Your task to perform on an android device: open app "Indeed Job Search" (install if not already installed), go to login, and select forgot password Image 0: 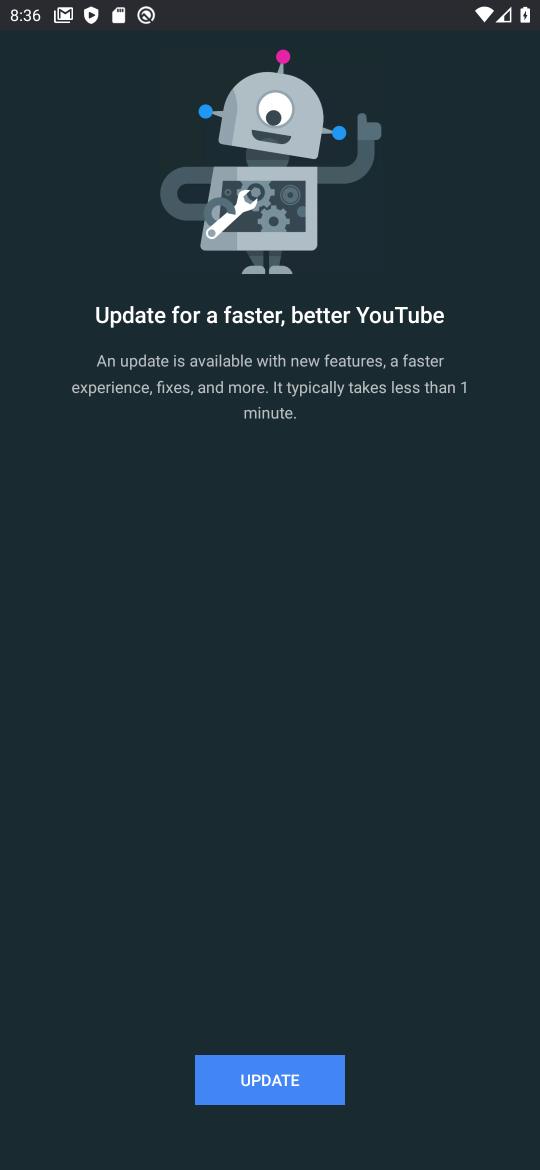
Step 0: press home button
Your task to perform on an android device: open app "Indeed Job Search" (install if not already installed), go to login, and select forgot password Image 1: 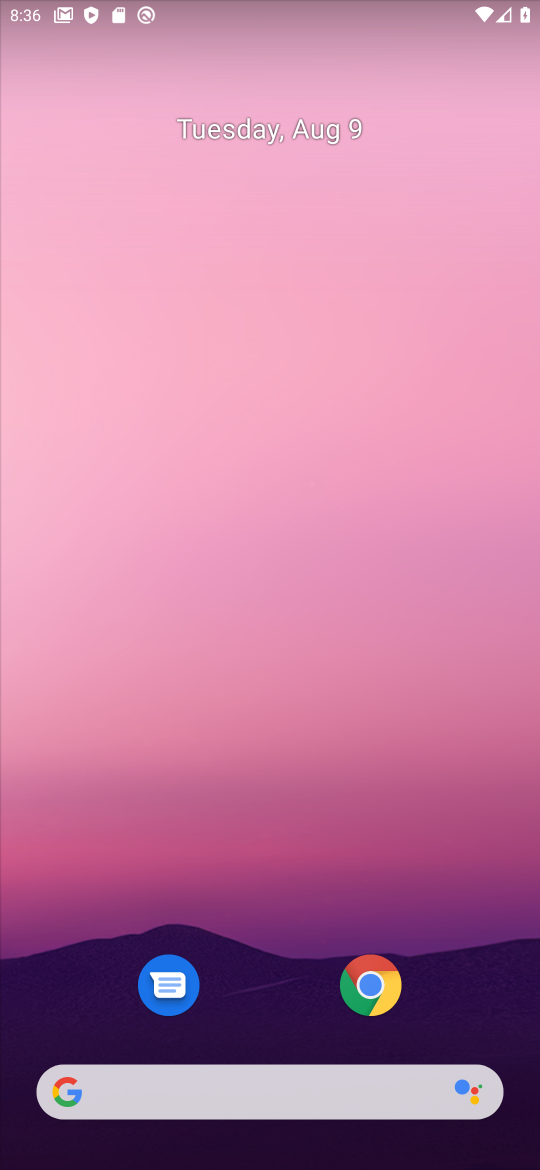
Step 1: drag from (234, 993) to (262, 656)
Your task to perform on an android device: open app "Indeed Job Search" (install if not already installed), go to login, and select forgot password Image 2: 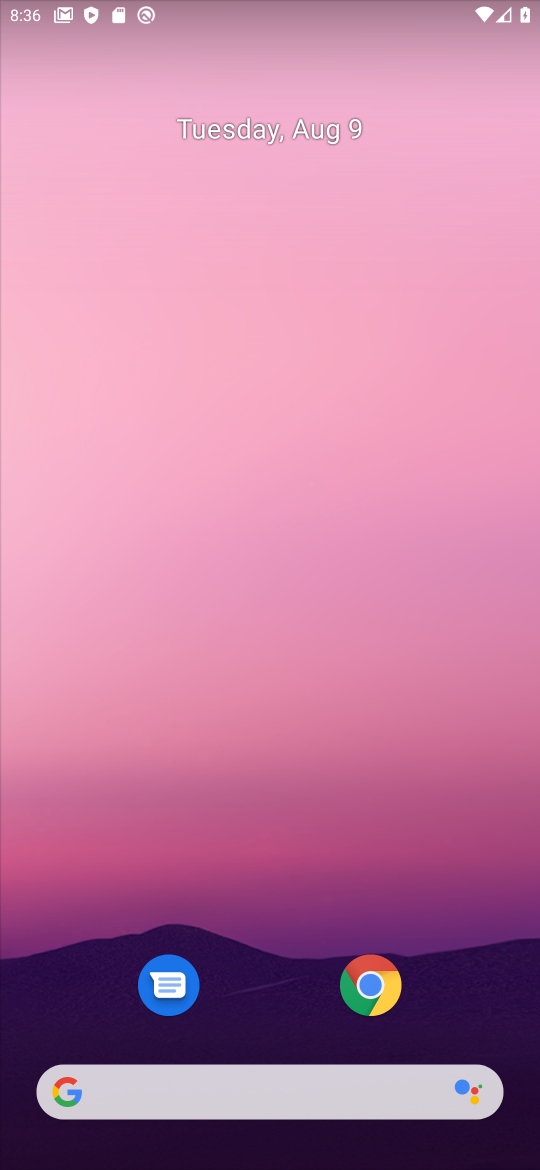
Step 2: drag from (265, 1029) to (337, 196)
Your task to perform on an android device: open app "Indeed Job Search" (install if not already installed), go to login, and select forgot password Image 3: 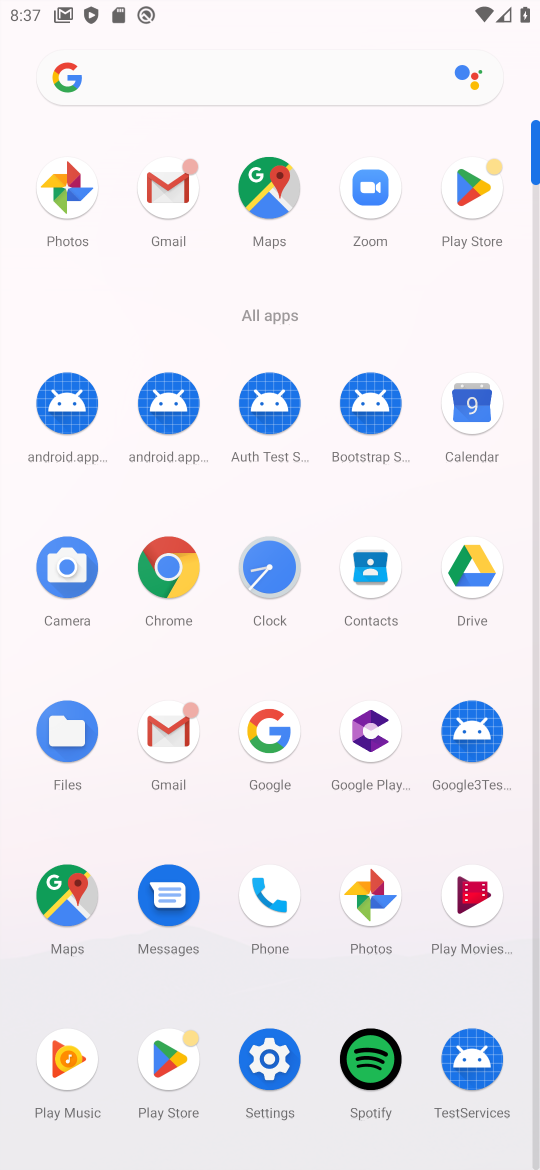
Step 3: click (160, 1069)
Your task to perform on an android device: open app "Indeed Job Search" (install if not already installed), go to login, and select forgot password Image 4: 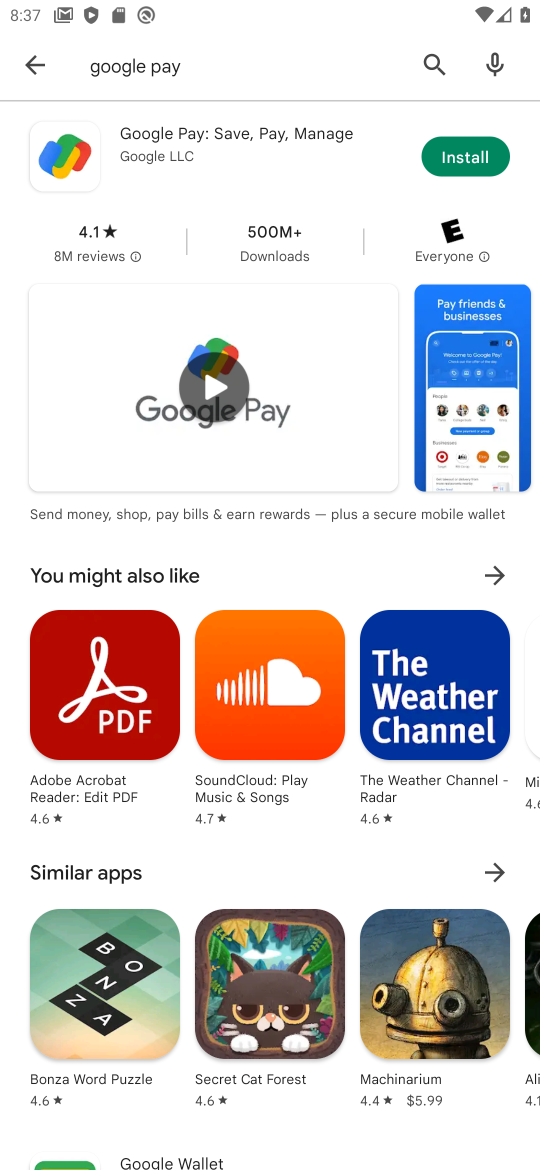
Step 4: click (213, 69)
Your task to perform on an android device: open app "Indeed Job Search" (install if not already installed), go to login, and select forgot password Image 5: 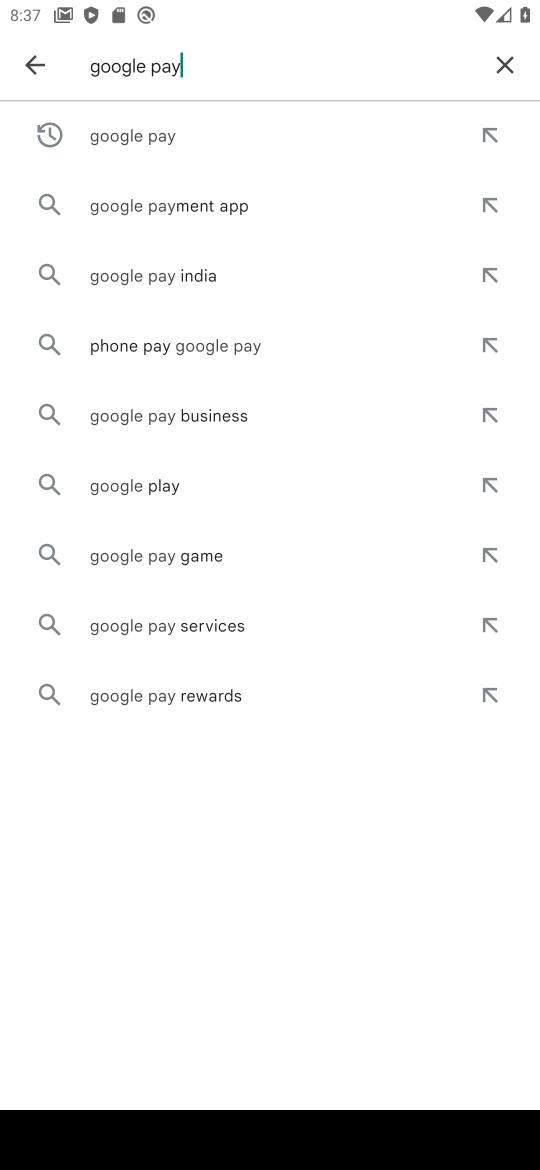
Step 5: click (516, 72)
Your task to perform on an android device: open app "Indeed Job Search" (install if not already installed), go to login, and select forgot password Image 6: 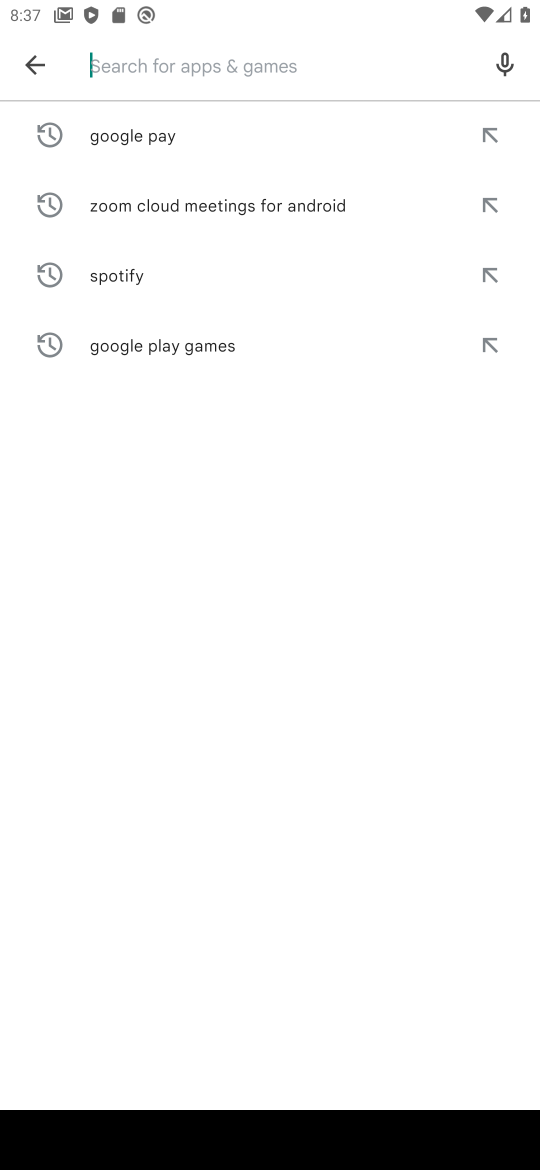
Step 6: type "indeed"
Your task to perform on an android device: open app "Indeed Job Search" (install if not already installed), go to login, and select forgot password Image 7: 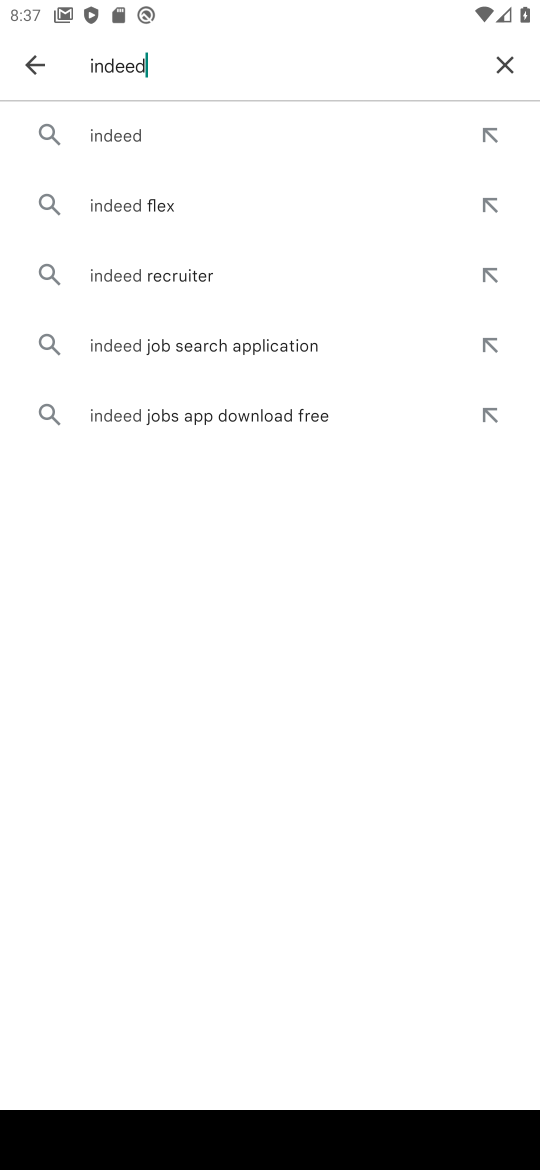
Step 7: click (128, 135)
Your task to perform on an android device: open app "Indeed Job Search" (install if not already installed), go to login, and select forgot password Image 8: 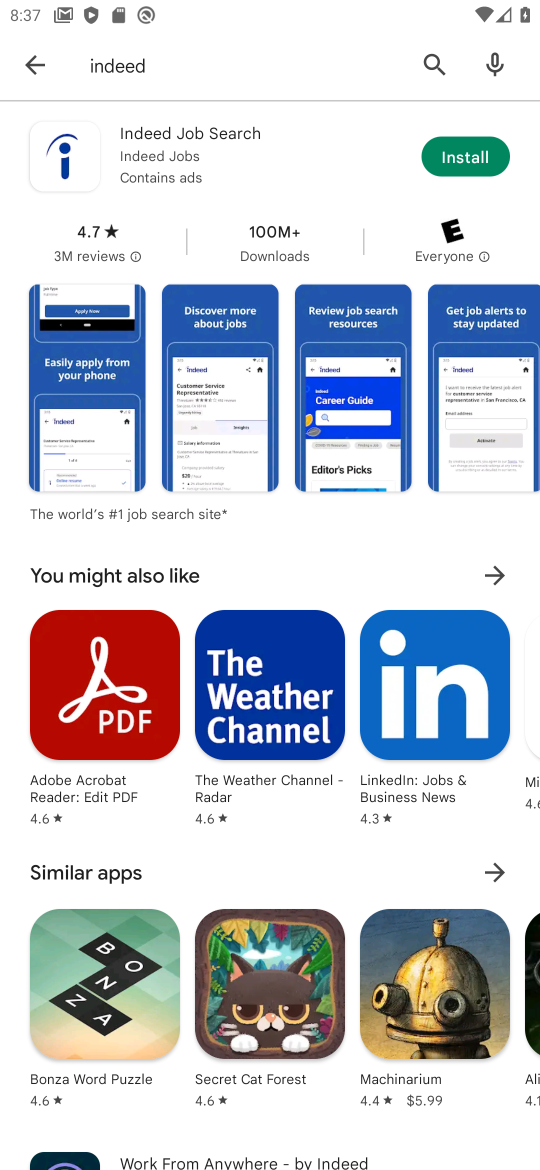
Step 8: click (444, 165)
Your task to perform on an android device: open app "Indeed Job Search" (install if not already installed), go to login, and select forgot password Image 9: 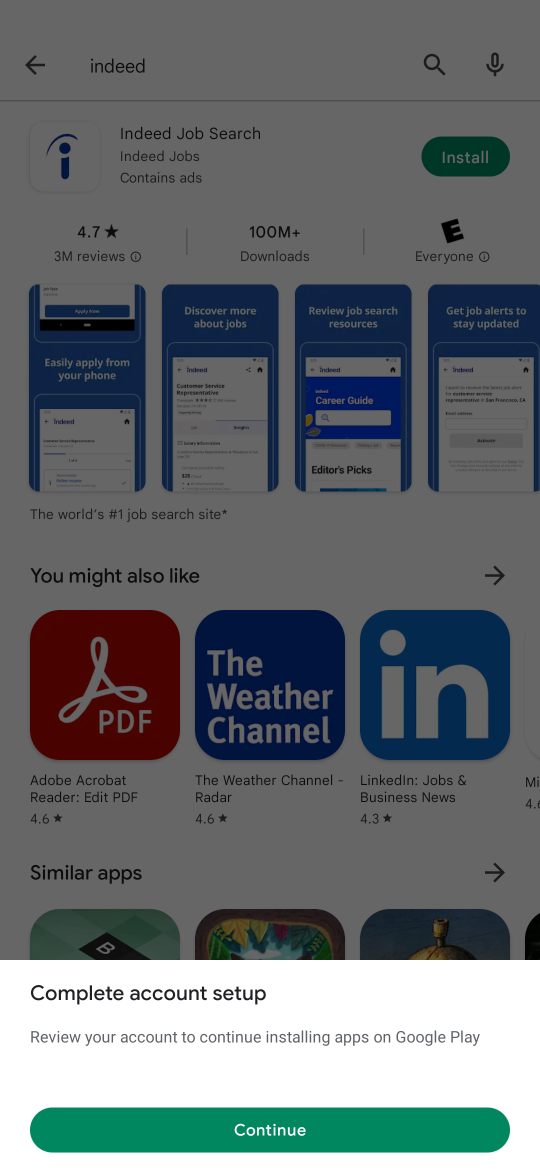
Step 9: click (214, 1120)
Your task to perform on an android device: open app "Indeed Job Search" (install if not already installed), go to login, and select forgot password Image 10: 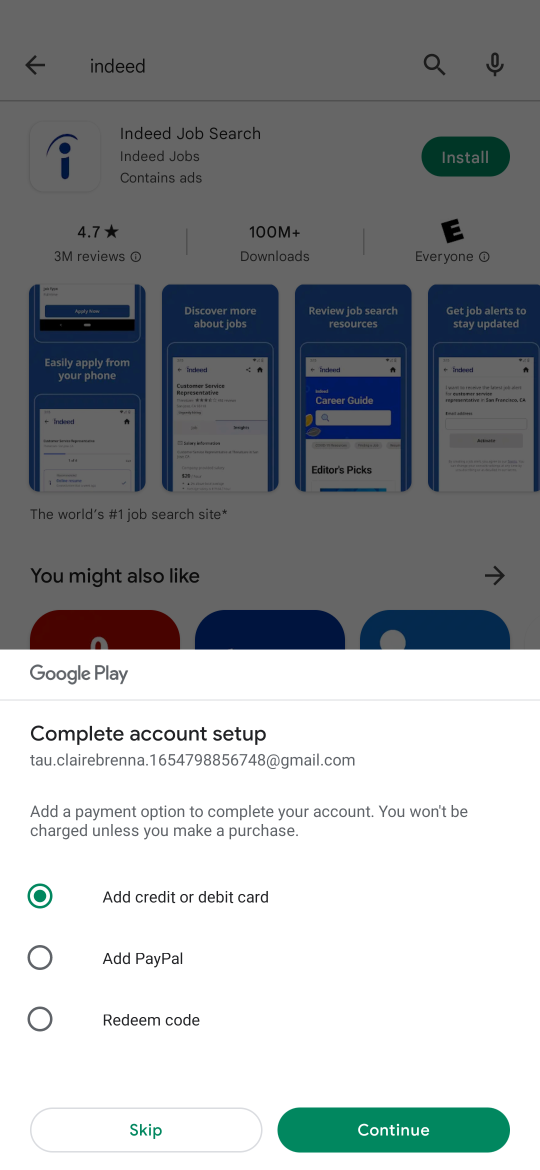
Step 10: click (152, 1137)
Your task to perform on an android device: open app "Indeed Job Search" (install if not already installed), go to login, and select forgot password Image 11: 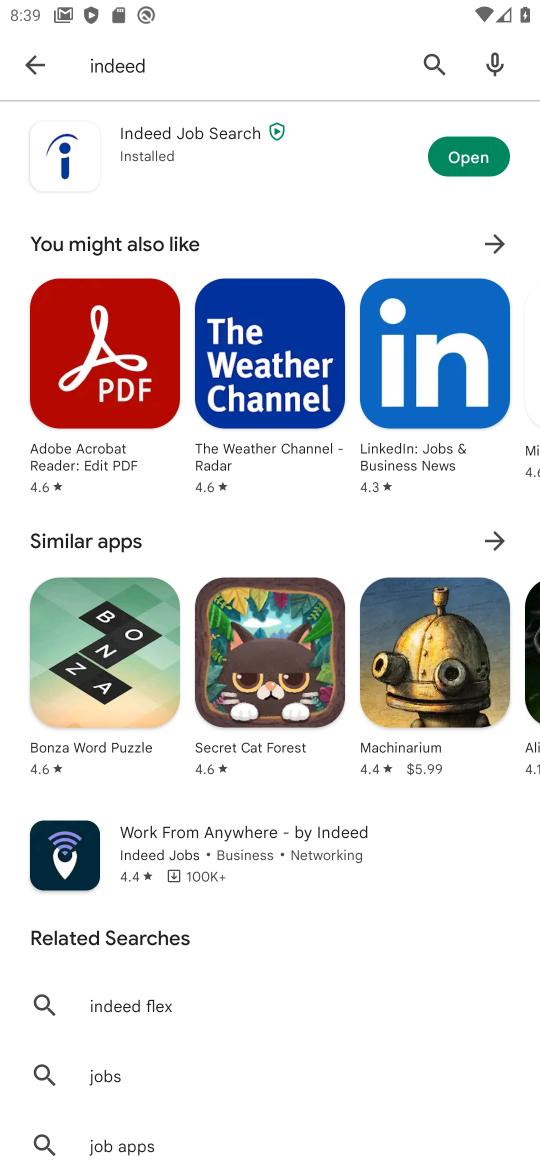
Step 11: click (451, 152)
Your task to perform on an android device: open app "Indeed Job Search" (install if not already installed), go to login, and select forgot password Image 12: 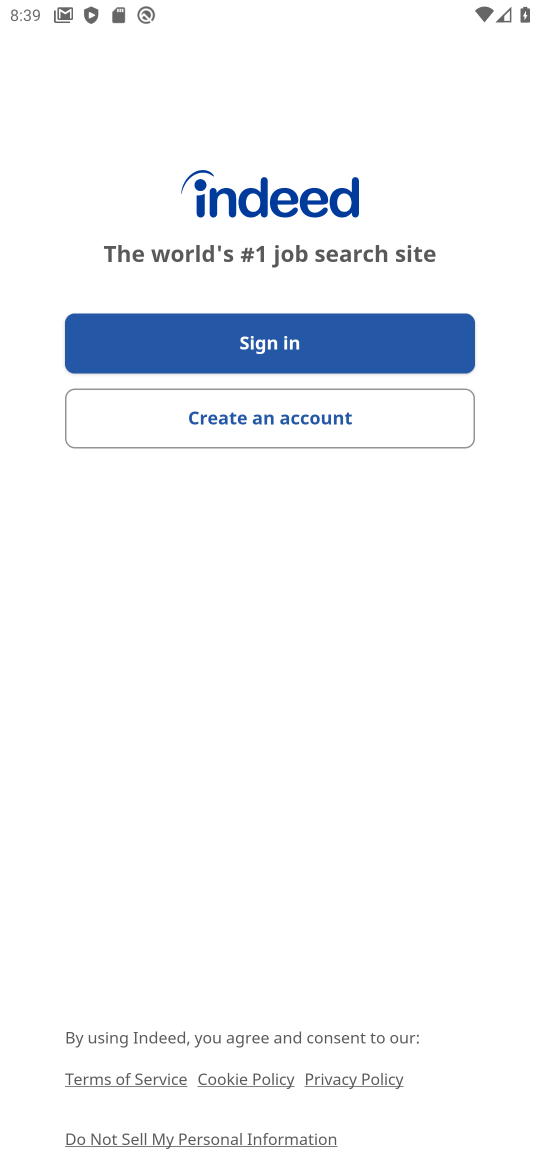
Step 12: click (285, 350)
Your task to perform on an android device: open app "Indeed Job Search" (install if not already installed), go to login, and select forgot password Image 13: 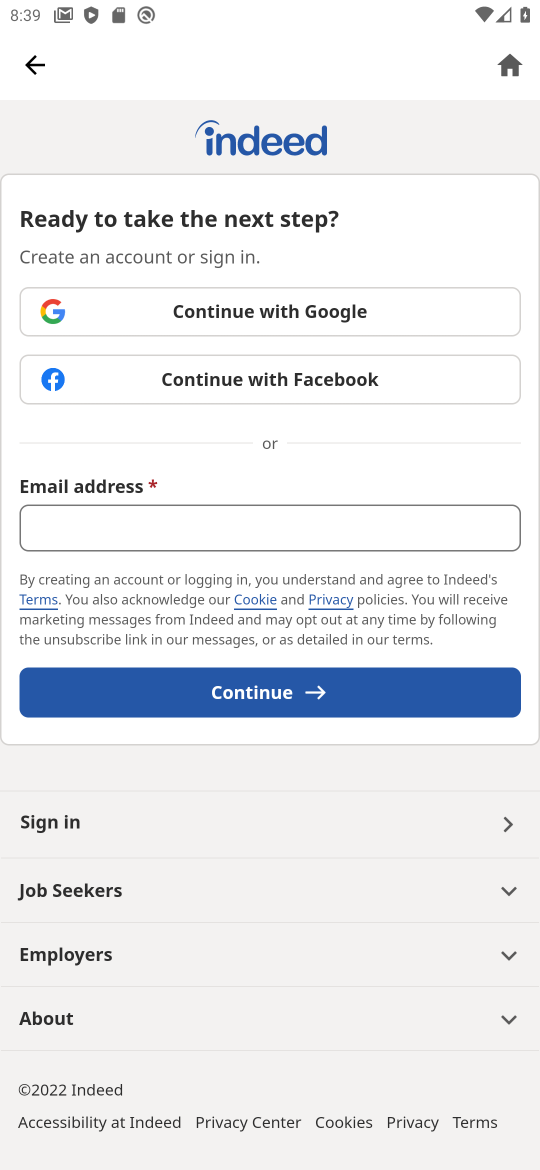
Step 13: click (305, 301)
Your task to perform on an android device: open app "Indeed Job Search" (install if not already installed), go to login, and select forgot password Image 14: 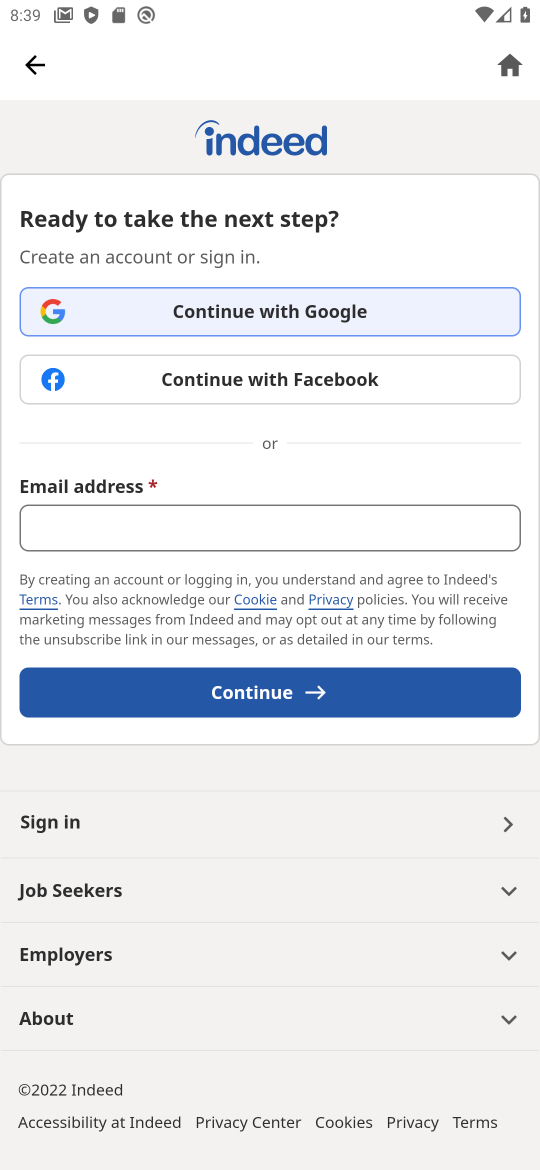
Step 14: click (258, 689)
Your task to perform on an android device: open app "Indeed Job Search" (install if not already installed), go to login, and select forgot password Image 15: 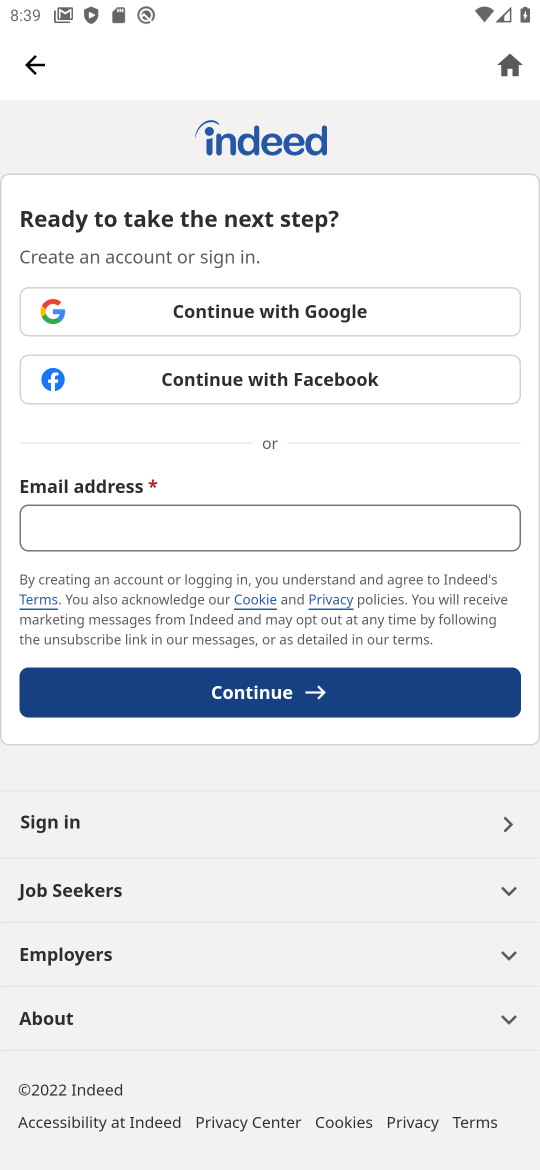
Step 15: click (256, 304)
Your task to perform on an android device: open app "Indeed Job Search" (install if not already installed), go to login, and select forgot password Image 16: 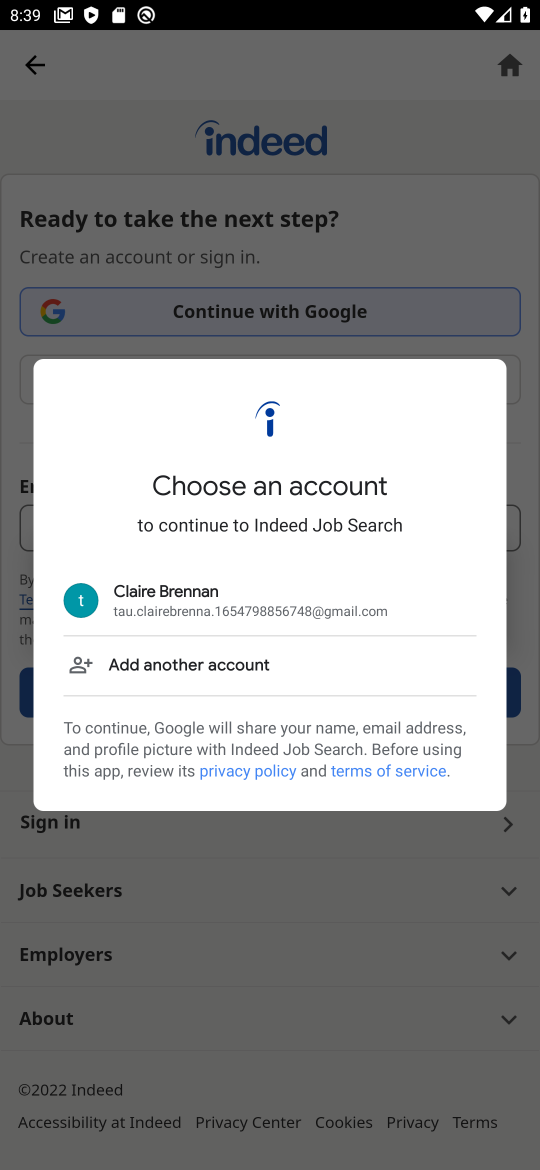
Step 16: click (244, 619)
Your task to perform on an android device: open app "Indeed Job Search" (install if not already installed), go to login, and select forgot password Image 17: 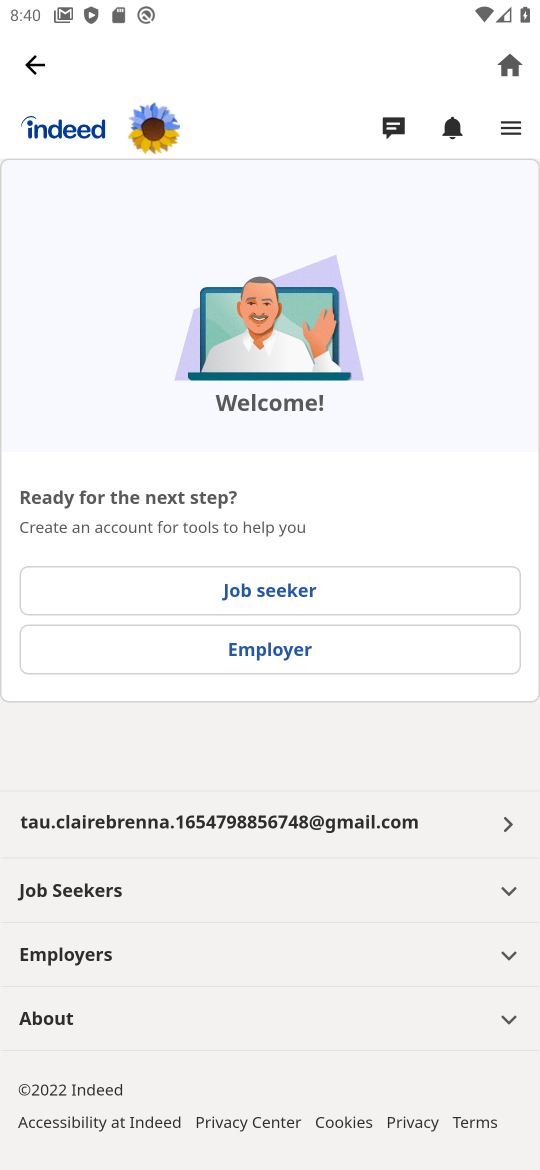
Step 17: click (263, 891)
Your task to perform on an android device: open app "Indeed Job Search" (install if not already installed), go to login, and select forgot password Image 18: 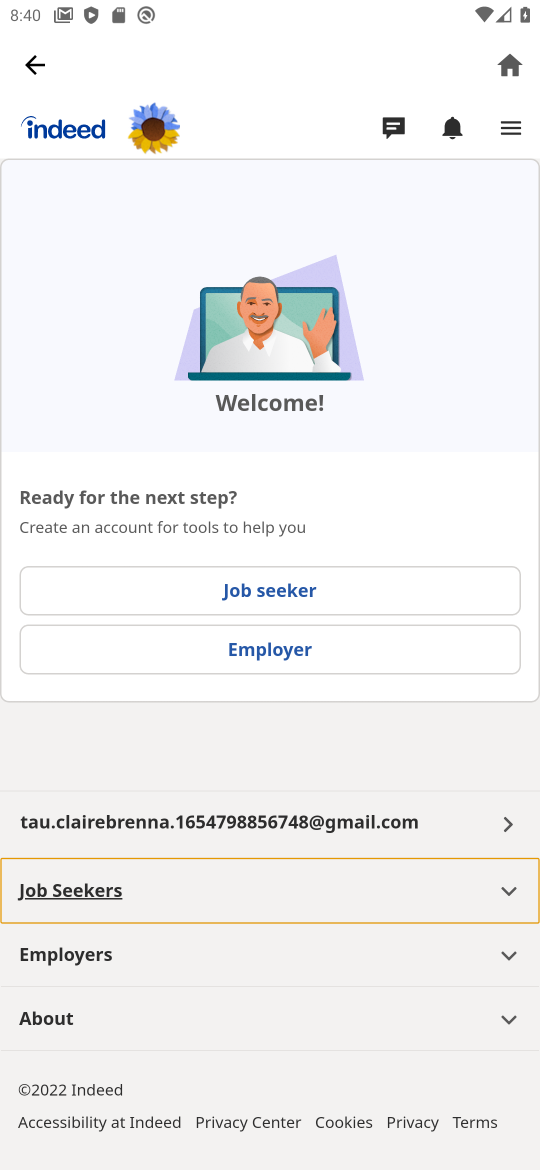
Step 18: click (281, 593)
Your task to perform on an android device: open app "Indeed Job Search" (install if not already installed), go to login, and select forgot password Image 19: 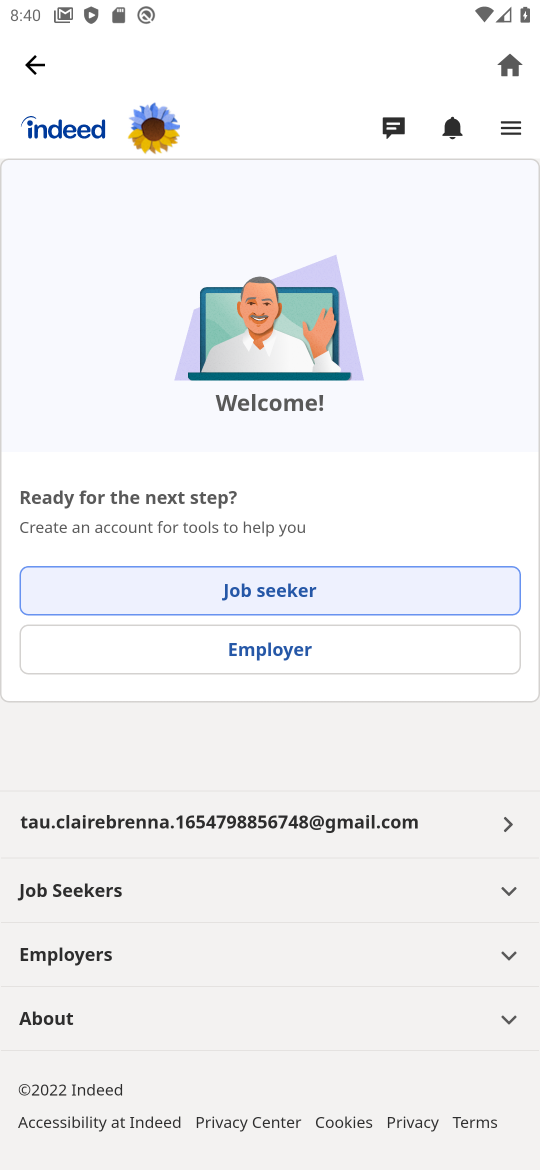
Step 19: click (281, 591)
Your task to perform on an android device: open app "Indeed Job Search" (install if not already installed), go to login, and select forgot password Image 20: 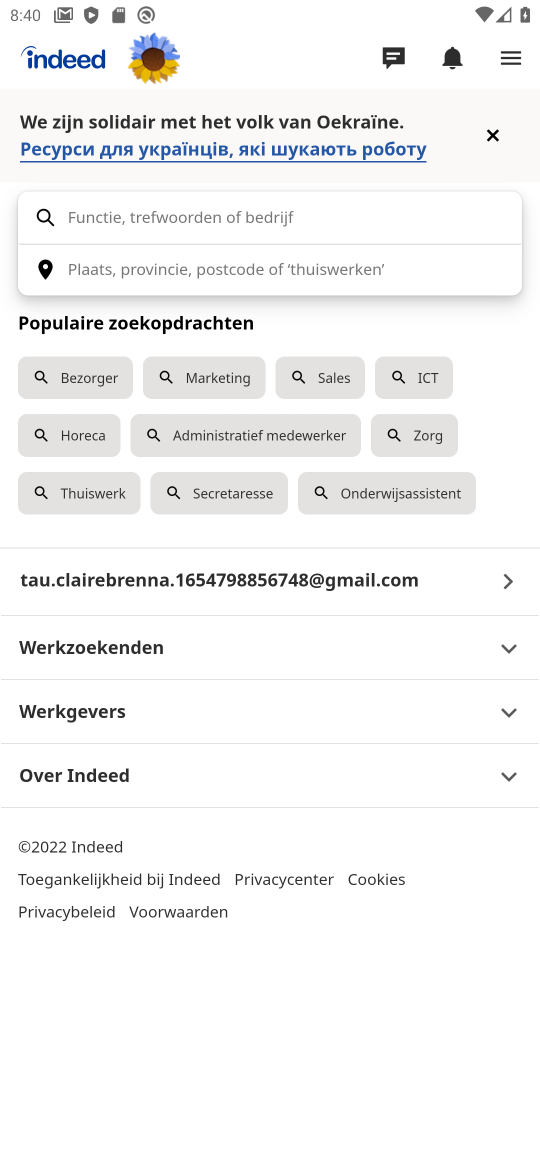
Step 20: task complete